Your task to perform on an android device: Show me productivity apps on the Play Store Image 0: 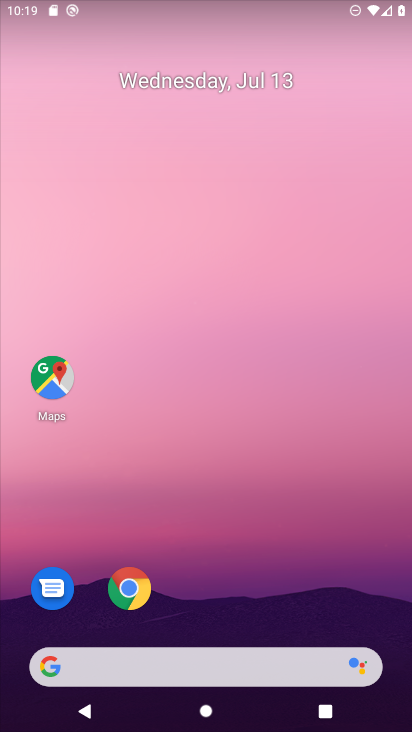
Step 0: drag from (198, 610) to (174, 92)
Your task to perform on an android device: Show me productivity apps on the Play Store Image 1: 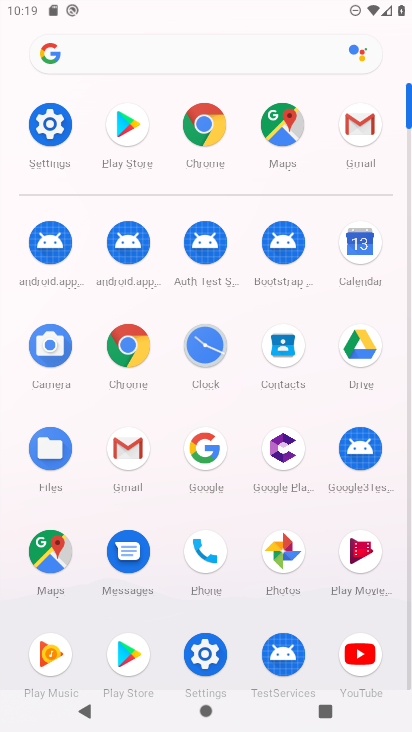
Step 1: click (134, 662)
Your task to perform on an android device: Show me productivity apps on the Play Store Image 2: 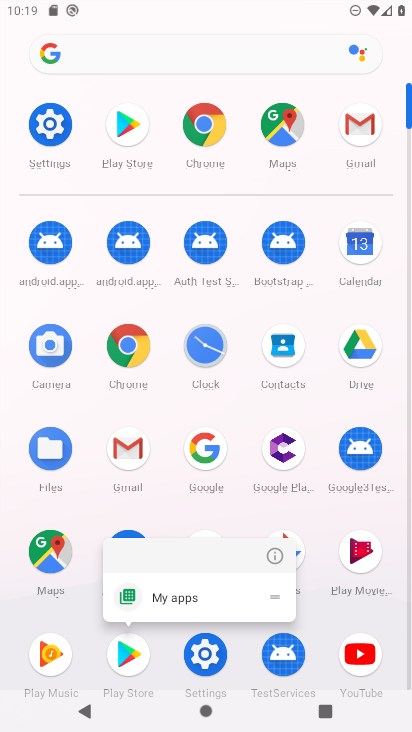
Step 2: click (130, 658)
Your task to perform on an android device: Show me productivity apps on the Play Store Image 3: 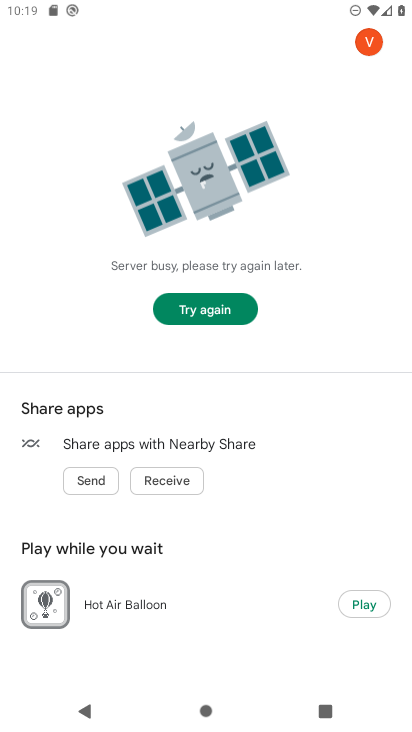
Step 3: click (172, 315)
Your task to perform on an android device: Show me productivity apps on the Play Store Image 4: 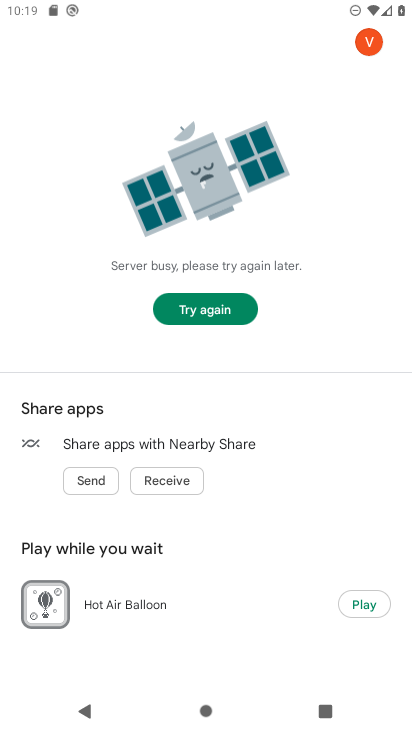
Step 4: task complete